Your task to perform on an android device: toggle location history Image 0: 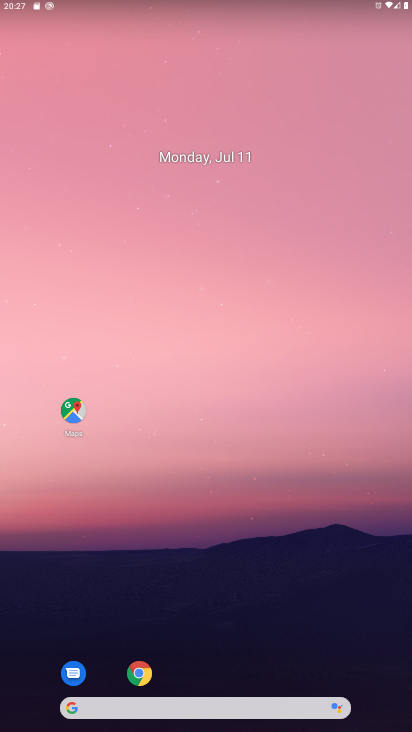
Step 0: press home button
Your task to perform on an android device: toggle location history Image 1: 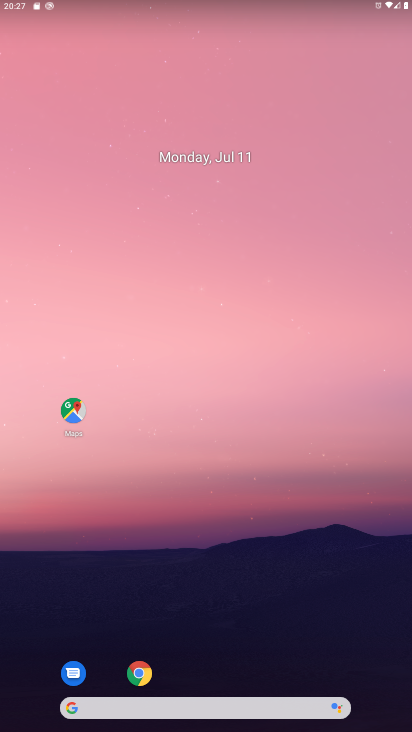
Step 1: drag from (207, 679) to (230, 102)
Your task to perform on an android device: toggle location history Image 2: 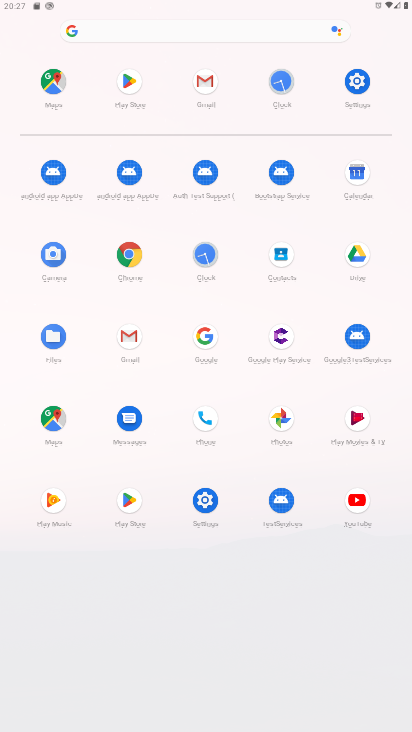
Step 2: click (208, 500)
Your task to perform on an android device: toggle location history Image 3: 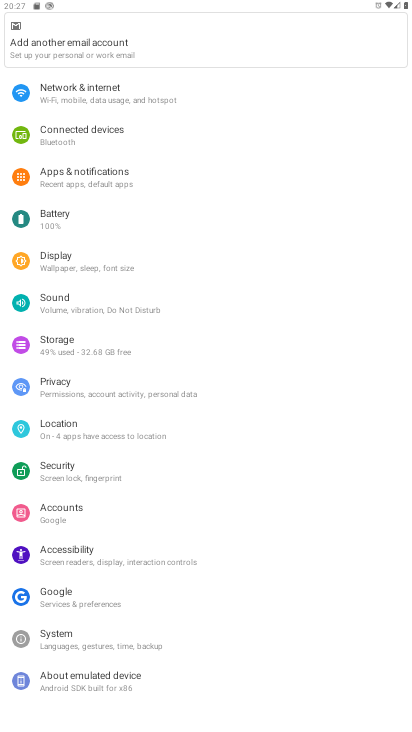
Step 3: click (88, 427)
Your task to perform on an android device: toggle location history Image 4: 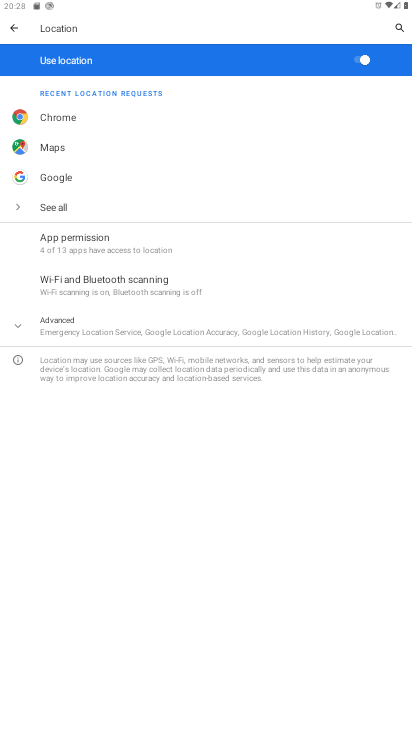
Step 4: click (22, 323)
Your task to perform on an android device: toggle location history Image 5: 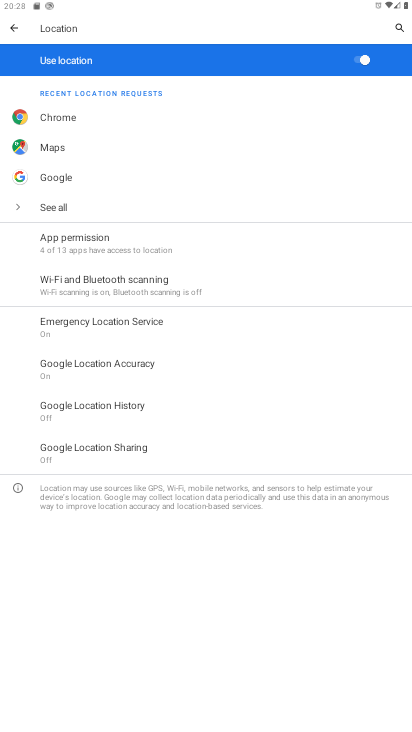
Step 5: click (133, 407)
Your task to perform on an android device: toggle location history Image 6: 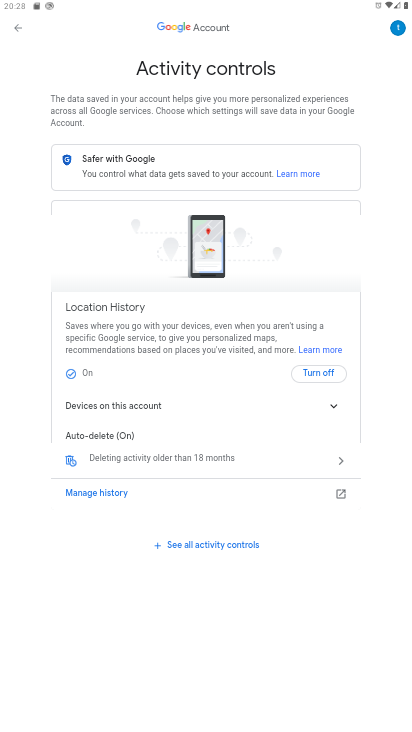
Step 6: task complete